Your task to perform on an android device: move a message to another label in the gmail app Image 0: 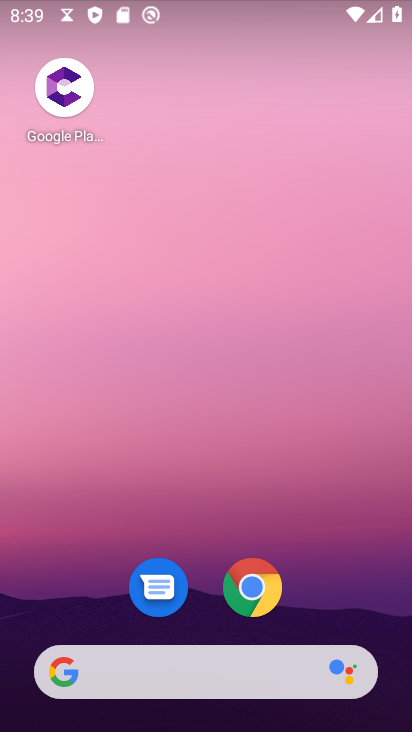
Step 0: drag from (207, 624) to (217, 137)
Your task to perform on an android device: move a message to another label in the gmail app Image 1: 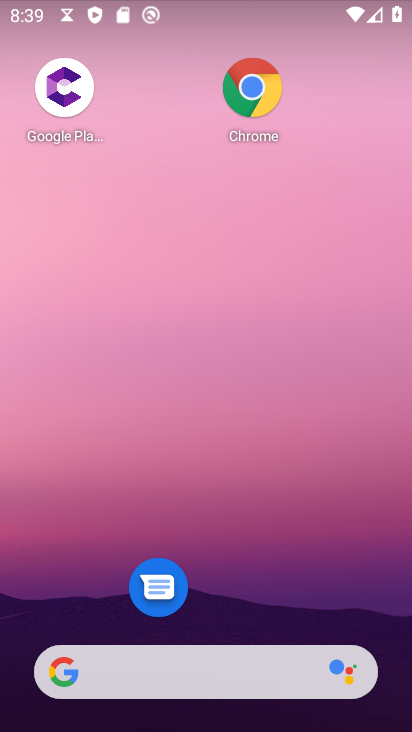
Step 1: drag from (220, 612) to (254, 190)
Your task to perform on an android device: move a message to another label in the gmail app Image 2: 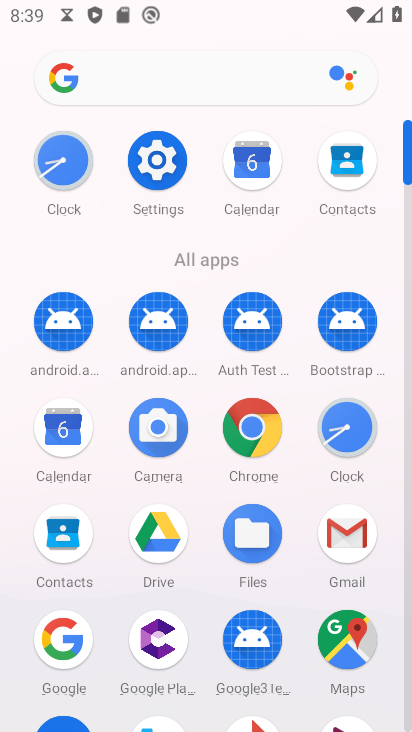
Step 2: click (357, 531)
Your task to perform on an android device: move a message to another label in the gmail app Image 3: 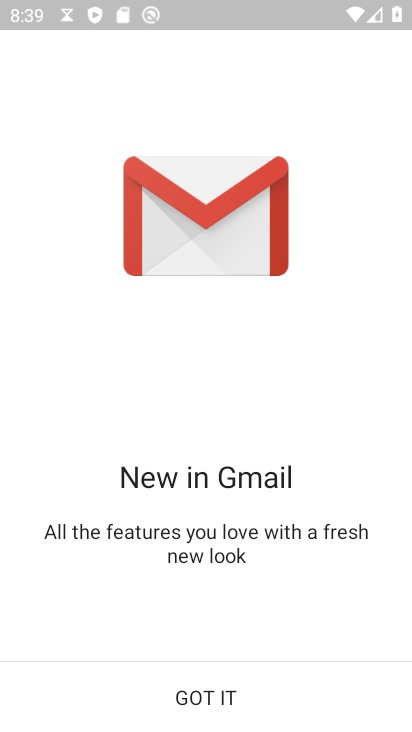
Step 3: click (236, 700)
Your task to perform on an android device: move a message to another label in the gmail app Image 4: 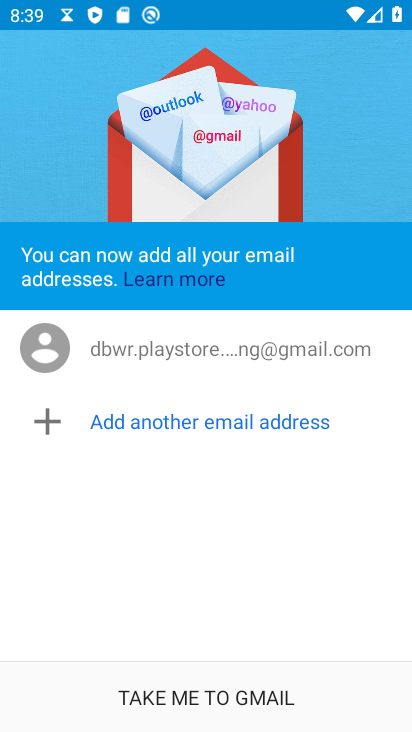
Step 4: click (207, 690)
Your task to perform on an android device: move a message to another label in the gmail app Image 5: 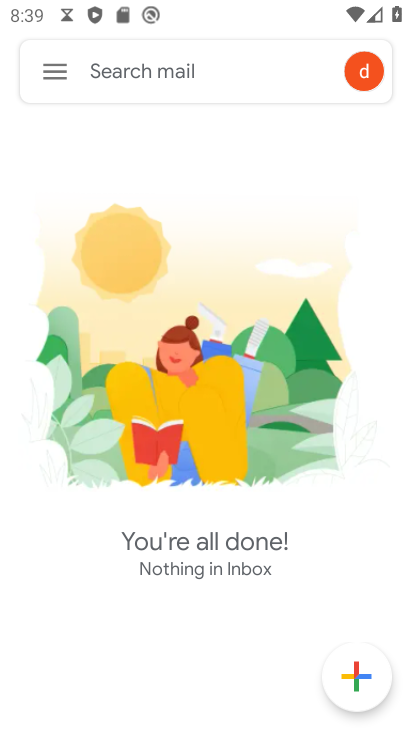
Step 5: click (50, 76)
Your task to perform on an android device: move a message to another label in the gmail app Image 6: 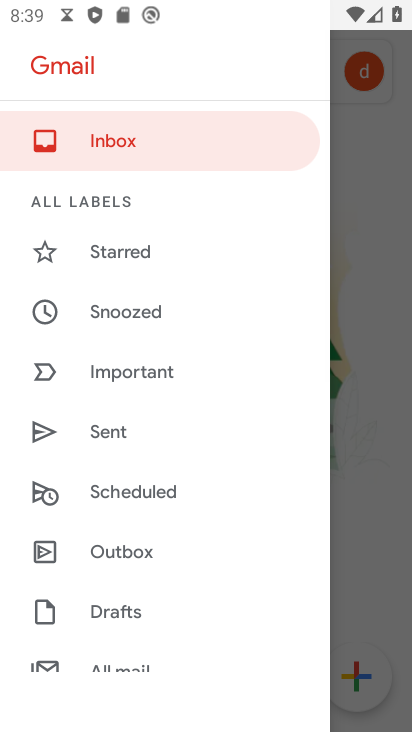
Step 6: drag from (126, 598) to (158, 425)
Your task to perform on an android device: move a message to another label in the gmail app Image 7: 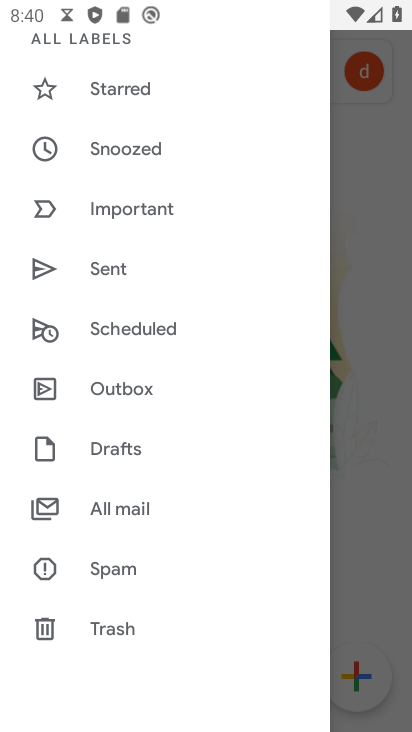
Step 7: click (114, 511)
Your task to perform on an android device: move a message to another label in the gmail app Image 8: 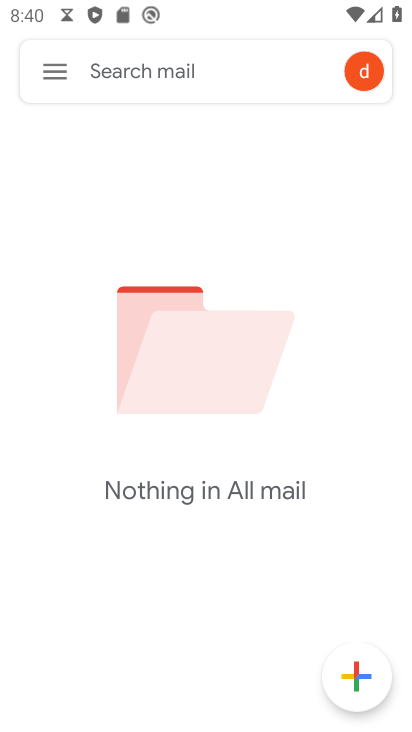
Step 8: task complete